Your task to perform on an android device: turn off airplane mode Image 0: 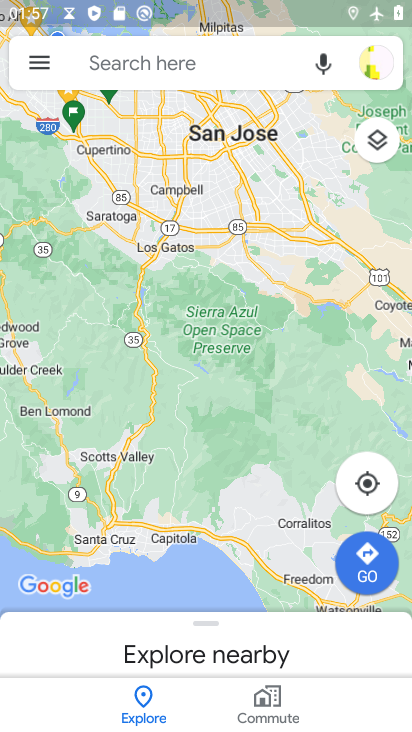
Step 0: press home button
Your task to perform on an android device: turn off airplane mode Image 1: 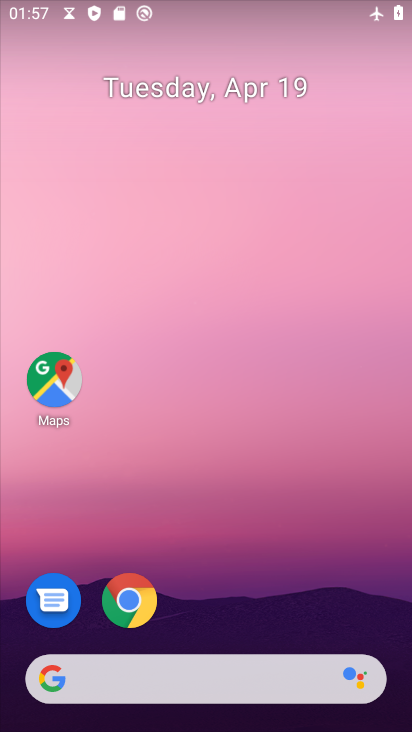
Step 1: drag from (197, 642) to (76, 8)
Your task to perform on an android device: turn off airplane mode Image 2: 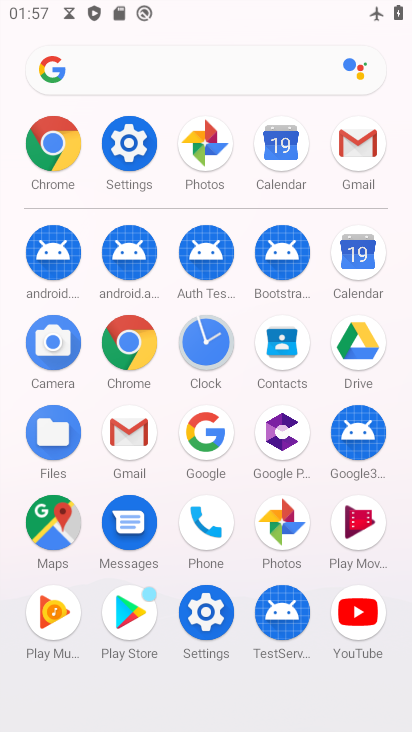
Step 2: click (211, 614)
Your task to perform on an android device: turn off airplane mode Image 3: 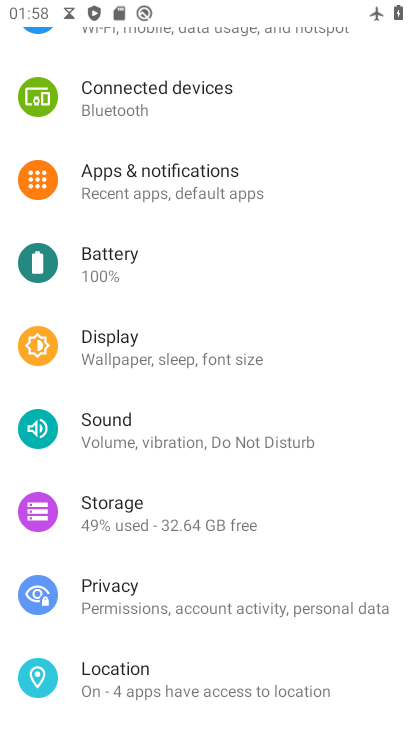
Step 3: drag from (147, 149) to (146, 543)
Your task to perform on an android device: turn off airplane mode Image 4: 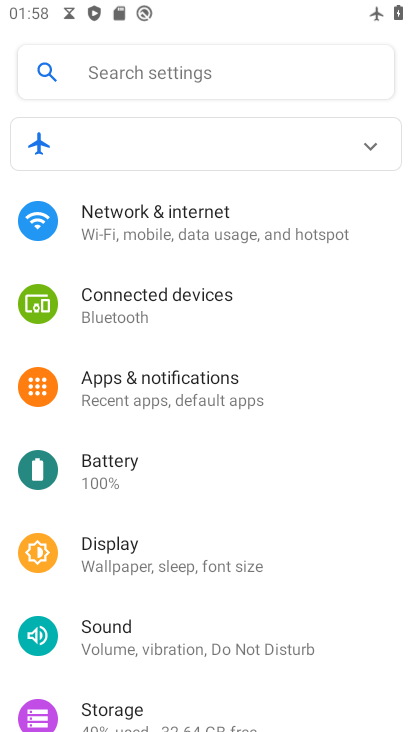
Step 4: click (121, 216)
Your task to perform on an android device: turn off airplane mode Image 5: 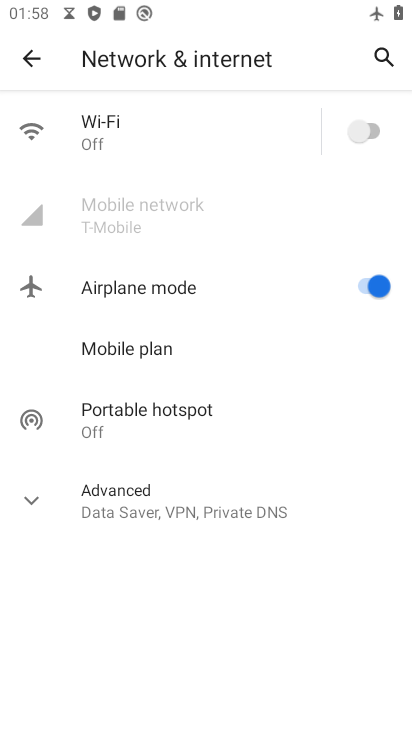
Step 5: click (380, 290)
Your task to perform on an android device: turn off airplane mode Image 6: 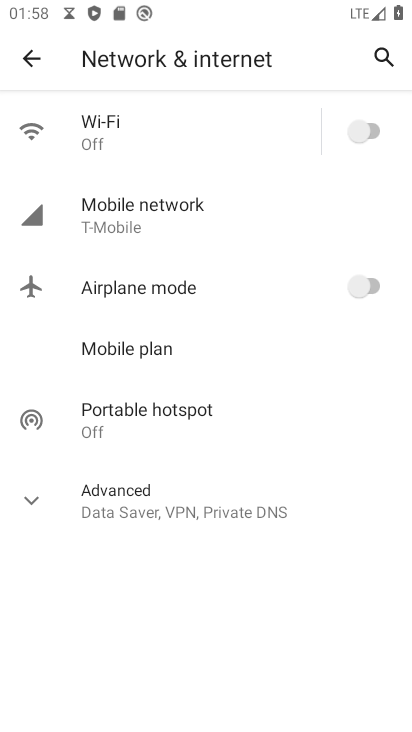
Step 6: task complete